Your task to perform on an android device: Open battery settings Image 0: 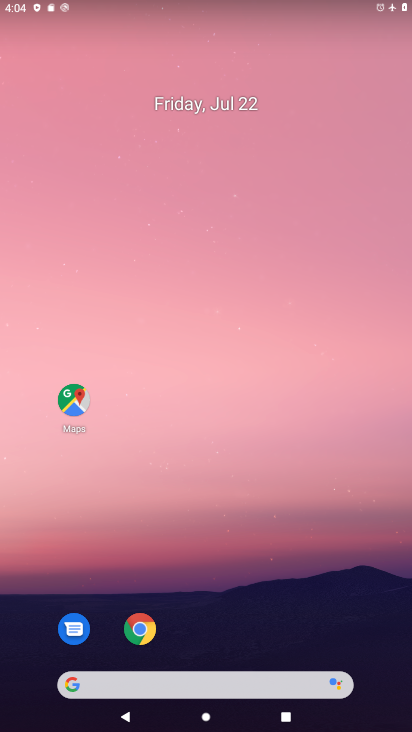
Step 0: drag from (284, 465) to (260, 9)
Your task to perform on an android device: Open battery settings Image 1: 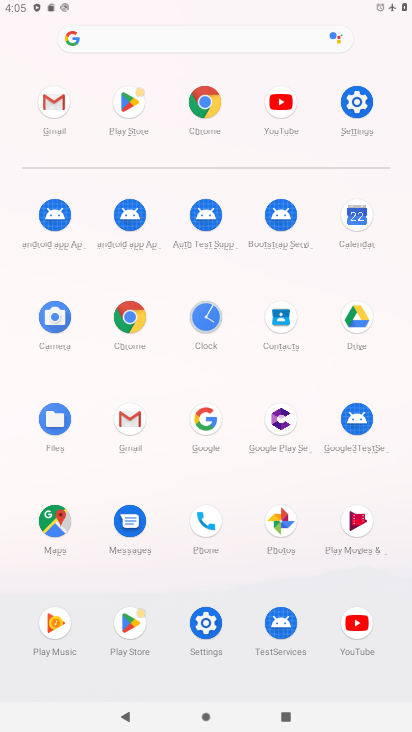
Step 1: click (351, 105)
Your task to perform on an android device: Open battery settings Image 2: 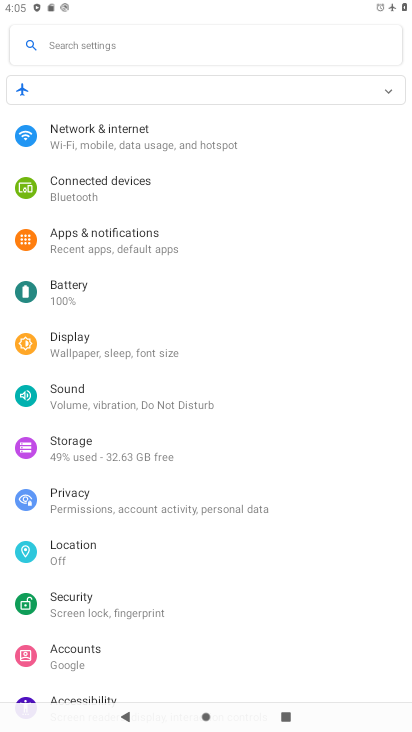
Step 2: click (96, 291)
Your task to perform on an android device: Open battery settings Image 3: 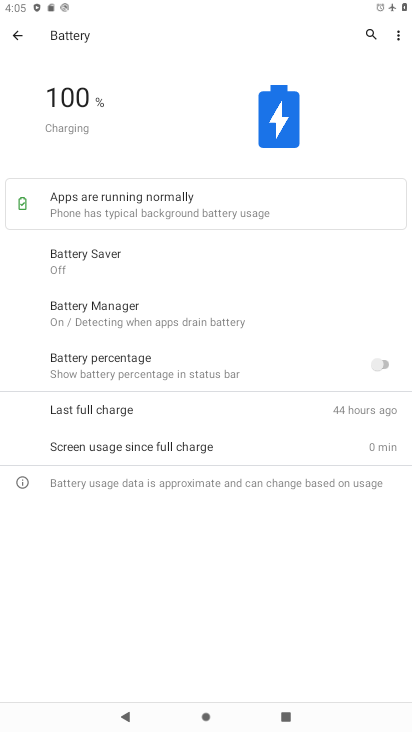
Step 3: task complete